Your task to perform on an android device: Go to notification settings Image 0: 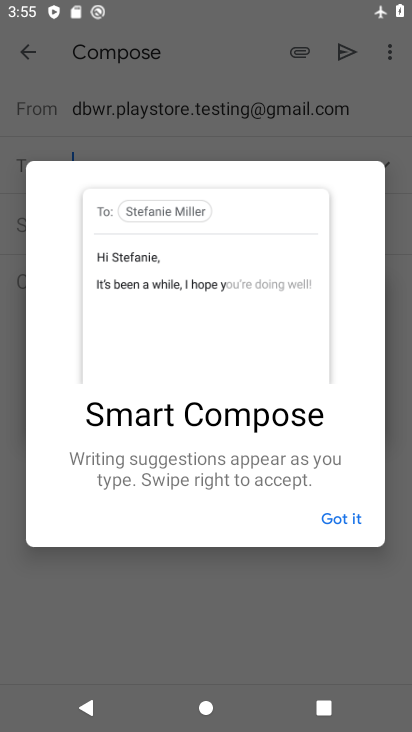
Step 0: press home button
Your task to perform on an android device: Go to notification settings Image 1: 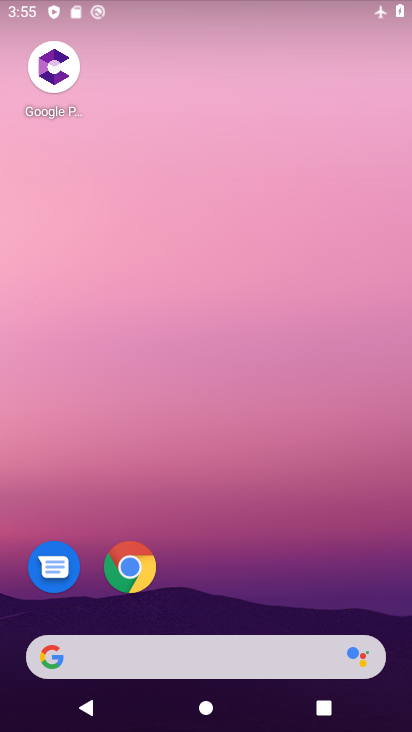
Step 1: drag from (235, 486) to (235, 129)
Your task to perform on an android device: Go to notification settings Image 2: 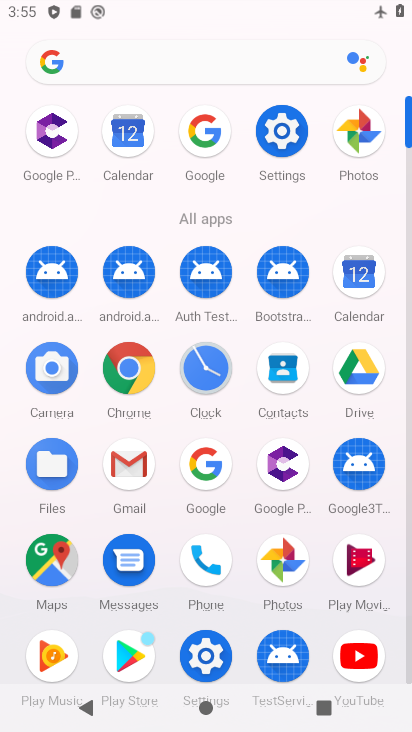
Step 2: click (307, 131)
Your task to perform on an android device: Go to notification settings Image 3: 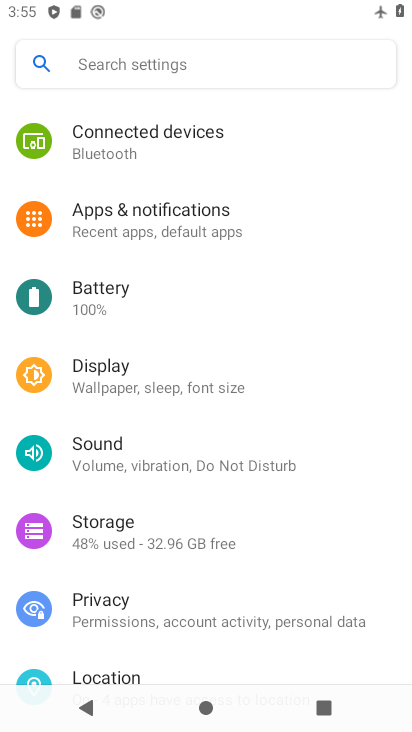
Step 3: click (210, 235)
Your task to perform on an android device: Go to notification settings Image 4: 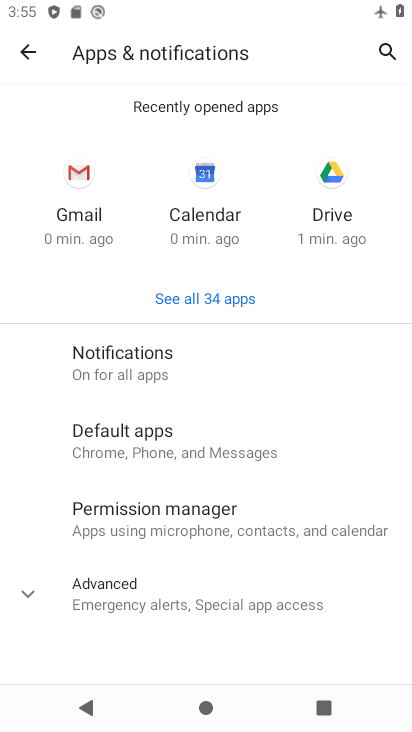
Step 4: click (139, 360)
Your task to perform on an android device: Go to notification settings Image 5: 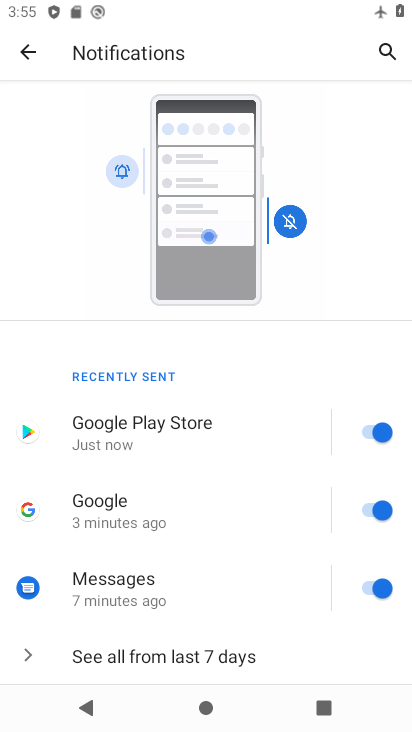
Step 5: task complete